Your task to perform on an android device: Open Google Chrome Image 0: 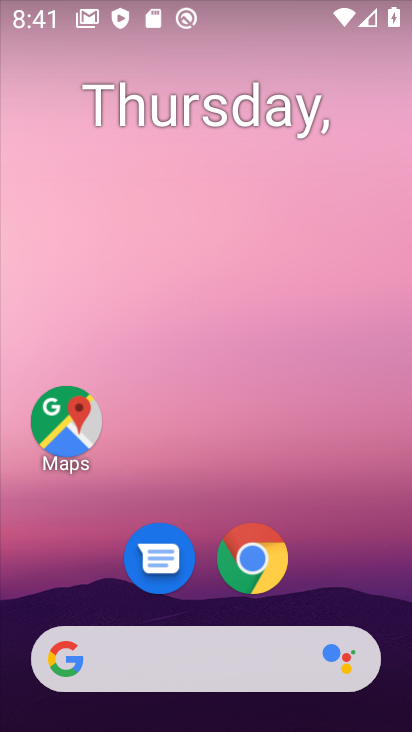
Step 0: click (249, 557)
Your task to perform on an android device: Open Google Chrome Image 1: 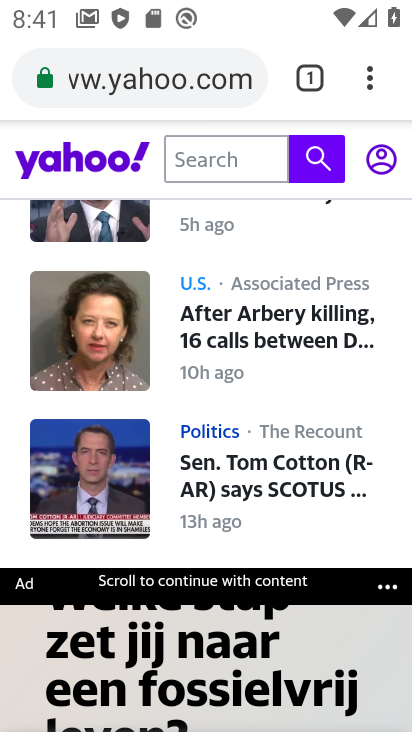
Step 1: click (307, 79)
Your task to perform on an android device: Open Google Chrome Image 2: 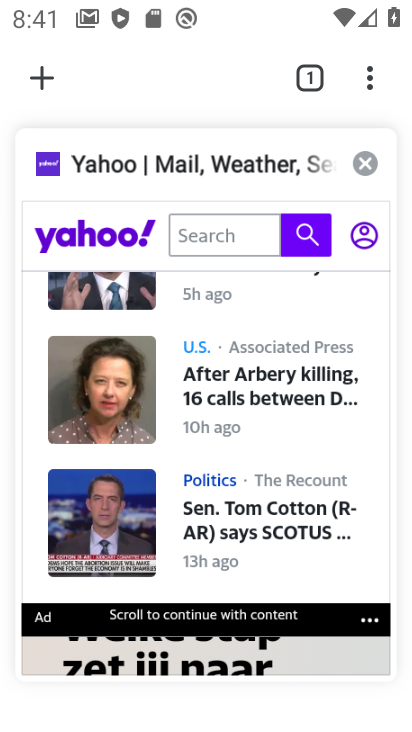
Step 2: click (36, 74)
Your task to perform on an android device: Open Google Chrome Image 3: 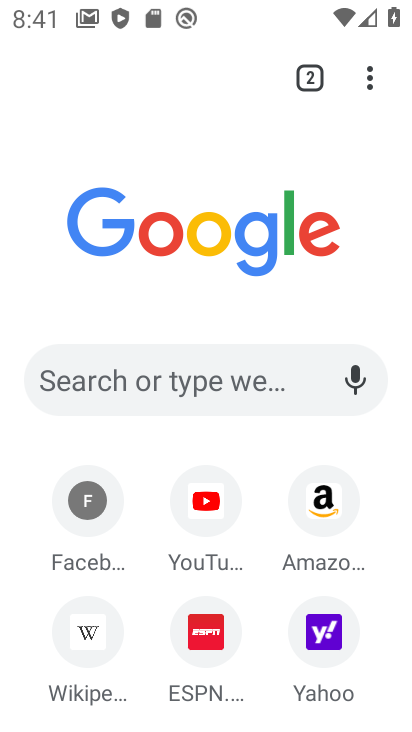
Step 3: task complete